Your task to perform on an android device: install app "ColorNote Notepad Notes" Image 0: 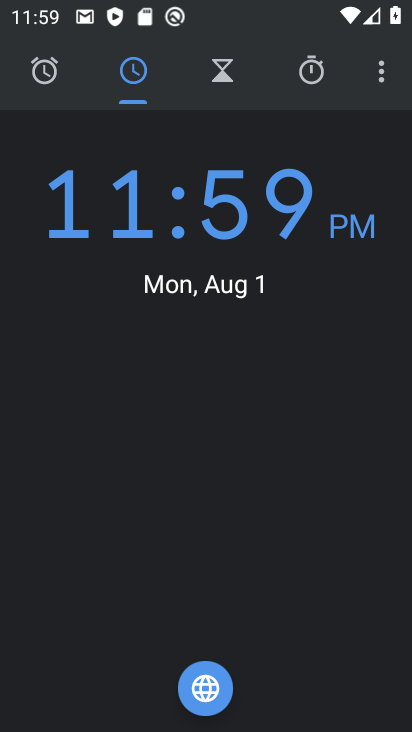
Step 0: press home button
Your task to perform on an android device: install app "ColorNote Notepad Notes" Image 1: 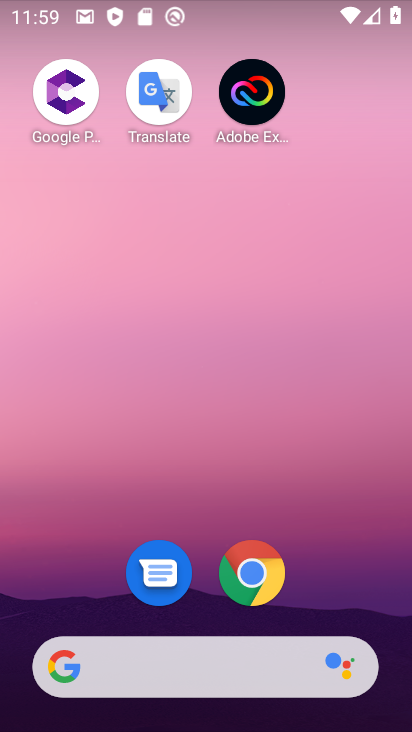
Step 1: drag from (218, 658) to (200, 204)
Your task to perform on an android device: install app "ColorNote Notepad Notes" Image 2: 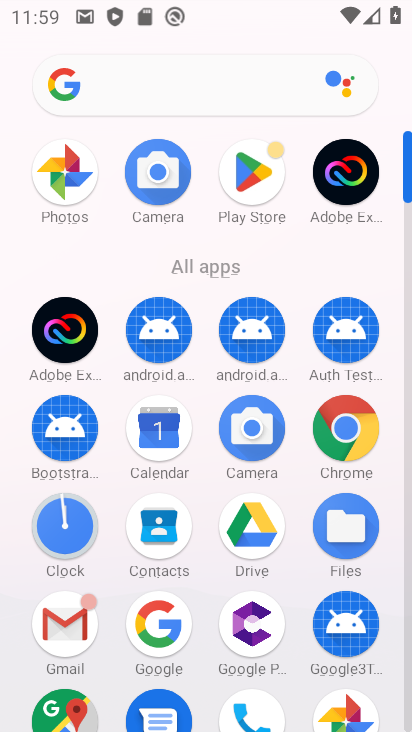
Step 2: click (255, 178)
Your task to perform on an android device: install app "ColorNote Notepad Notes" Image 3: 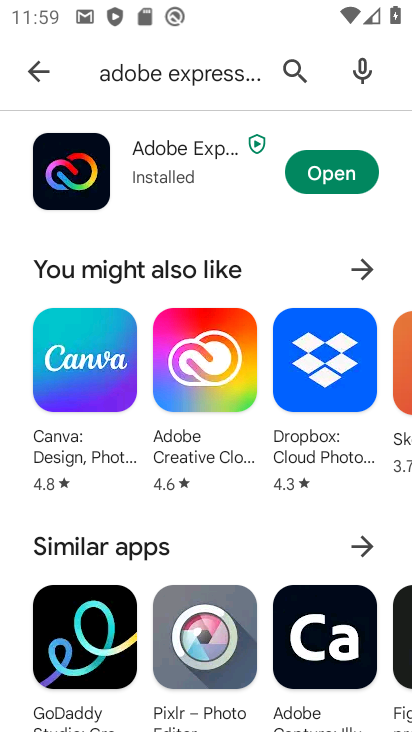
Step 3: click (275, 61)
Your task to perform on an android device: install app "ColorNote Notepad Notes" Image 4: 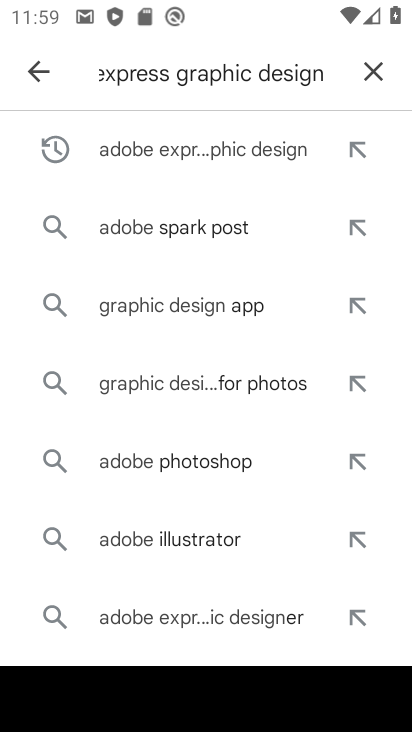
Step 4: click (378, 68)
Your task to perform on an android device: install app "ColorNote Notepad Notes" Image 5: 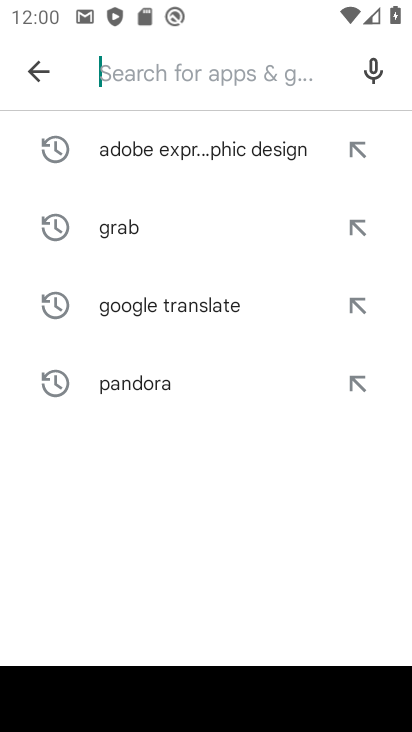
Step 5: type "colornote notepad notes"
Your task to perform on an android device: install app "ColorNote Notepad Notes" Image 6: 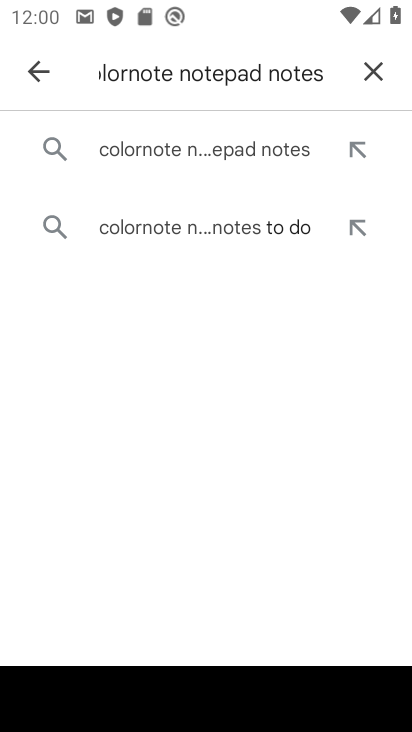
Step 6: click (181, 154)
Your task to perform on an android device: install app "ColorNote Notepad Notes" Image 7: 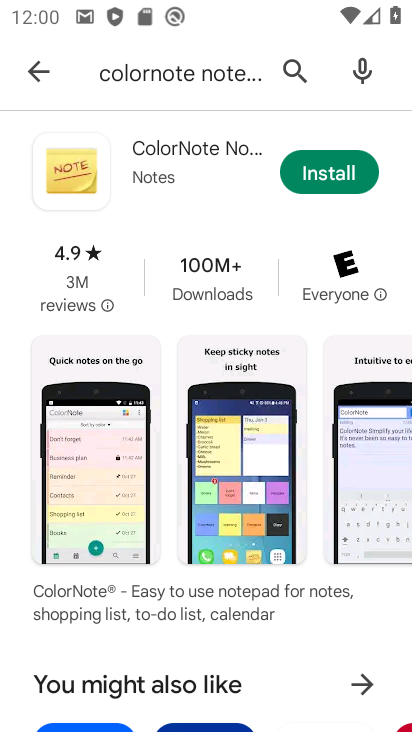
Step 7: click (299, 171)
Your task to perform on an android device: install app "ColorNote Notepad Notes" Image 8: 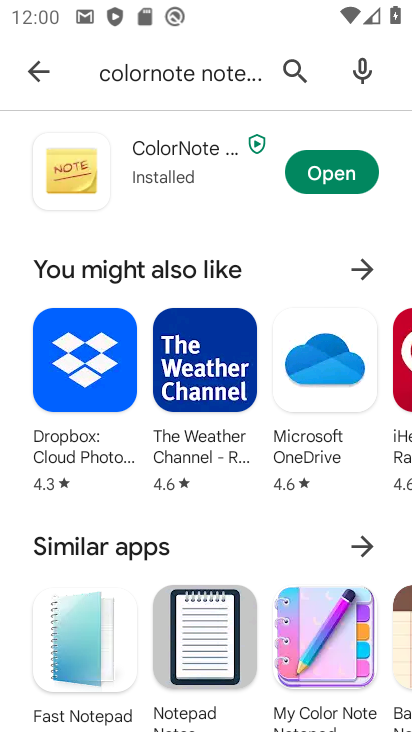
Step 8: task complete